Your task to perform on an android device: open app "Microsoft Excel" (install if not already installed), go to login, and select forgot password Image 0: 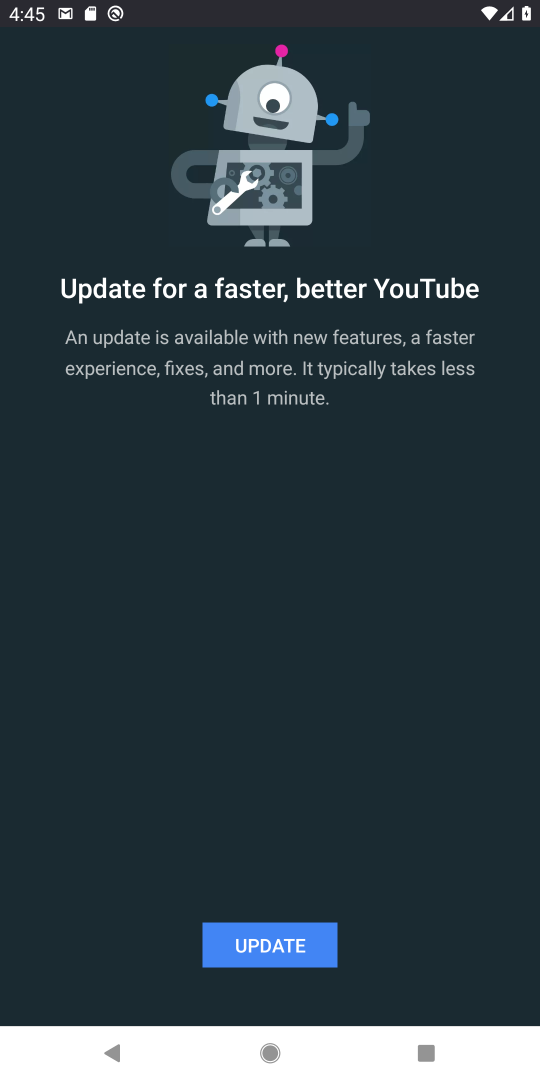
Step 0: press home button
Your task to perform on an android device: open app "Microsoft Excel" (install if not already installed), go to login, and select forgot password Image 1: 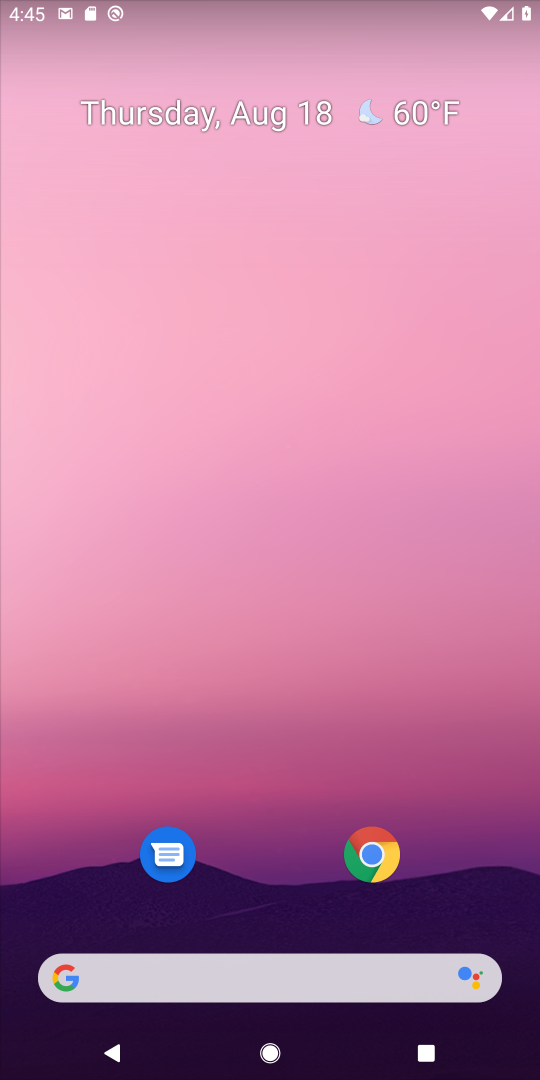
Step 1: drag from (254, 294) to (279, 144)
Your task to perform on an android device: open app "Microsoft Excel" (install if not already installed), go to login, and select forgot password Image 2: 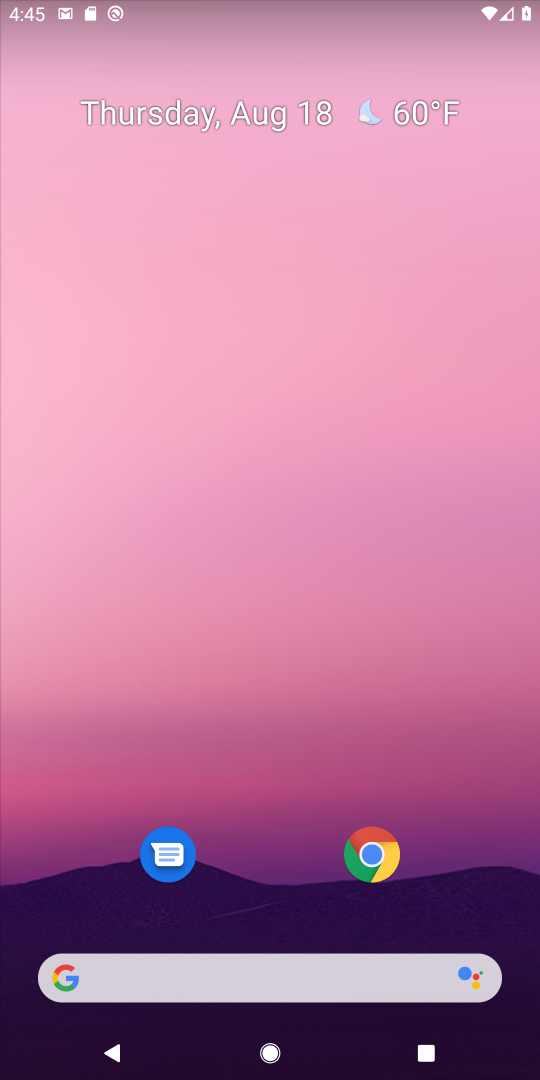
Step 2: click (287, 181)
Your task to perform on an android device: open app "Microsoft Excel" (install if not already installed), go to login, and select forgot password Image 3: 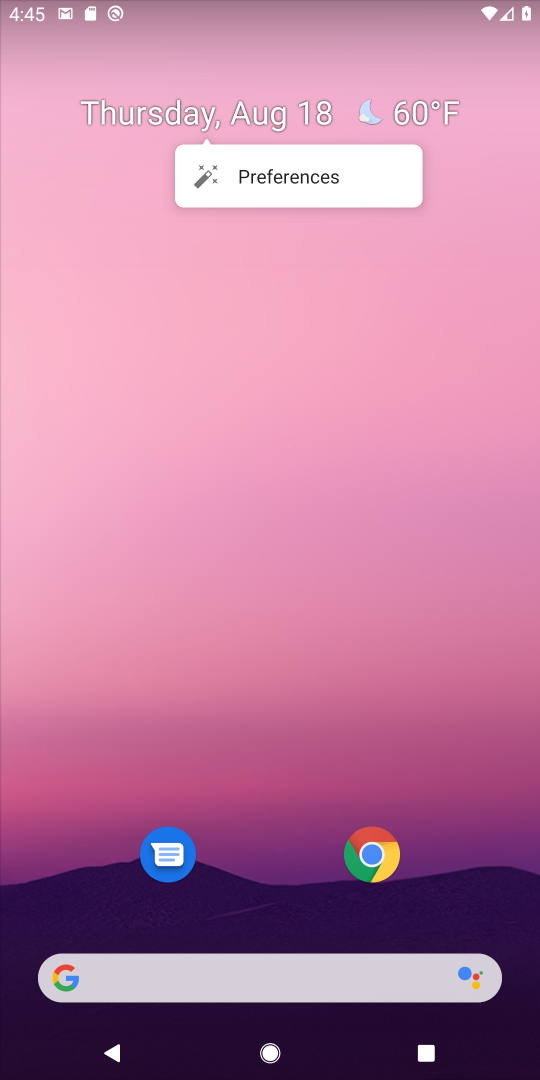
Step 3: drag from (296, 32) to (232, 206)
Your task to perform on an android device: open app "Microsoft Excel" (install if not already installed), go to login, and select forgot password Image 4: 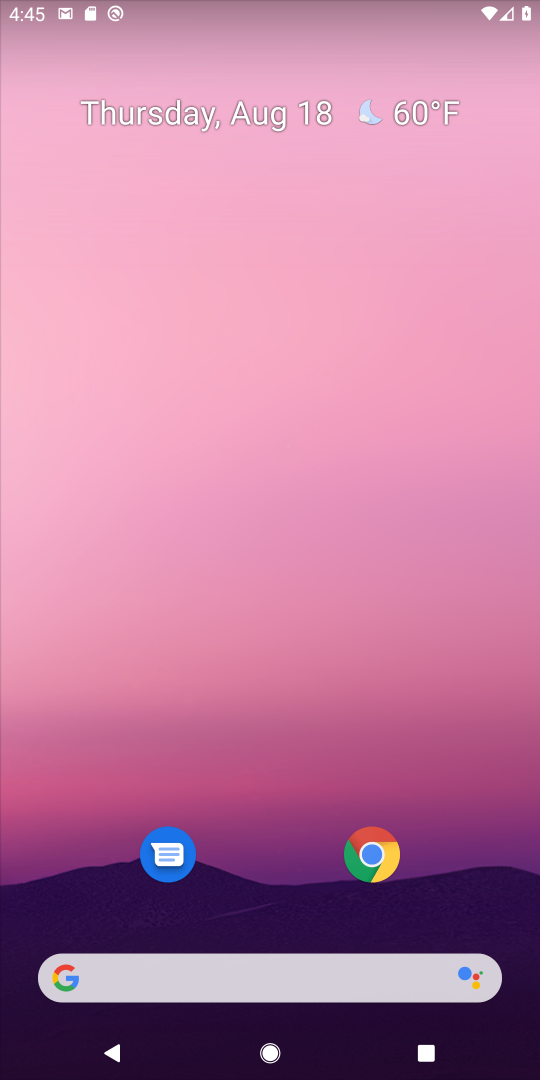
Step 4: click (299, 41)
Your task to perform on an android device: open app "Microsoft Excel" (install if not already installed), go to login, and select forgot password Image 5: 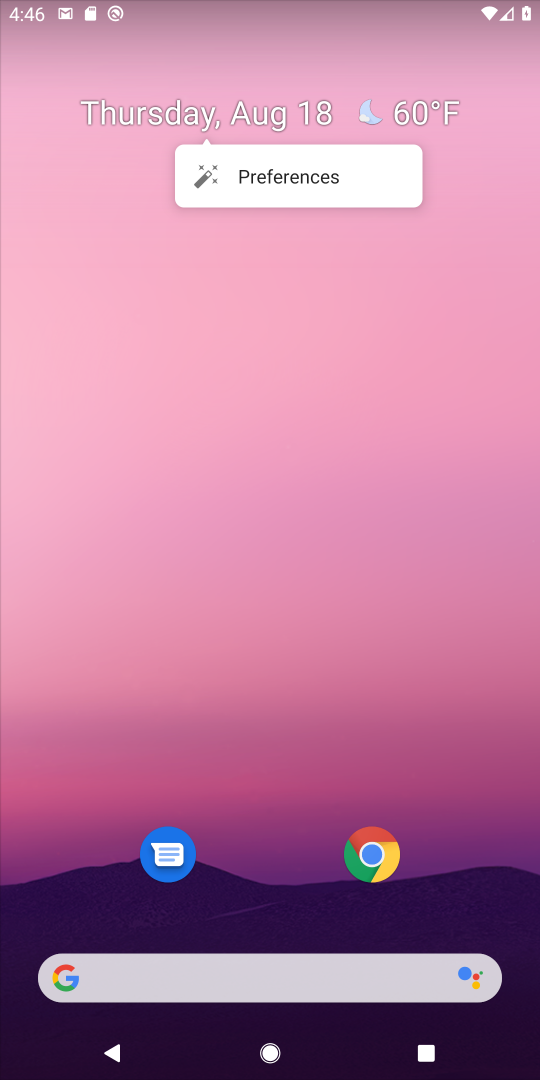
Step 5: click (306, 117)
Your task to perform on an android device: open app "Microsoft Excel" (install if not already installed), go to login, and select forgot password Image 6: 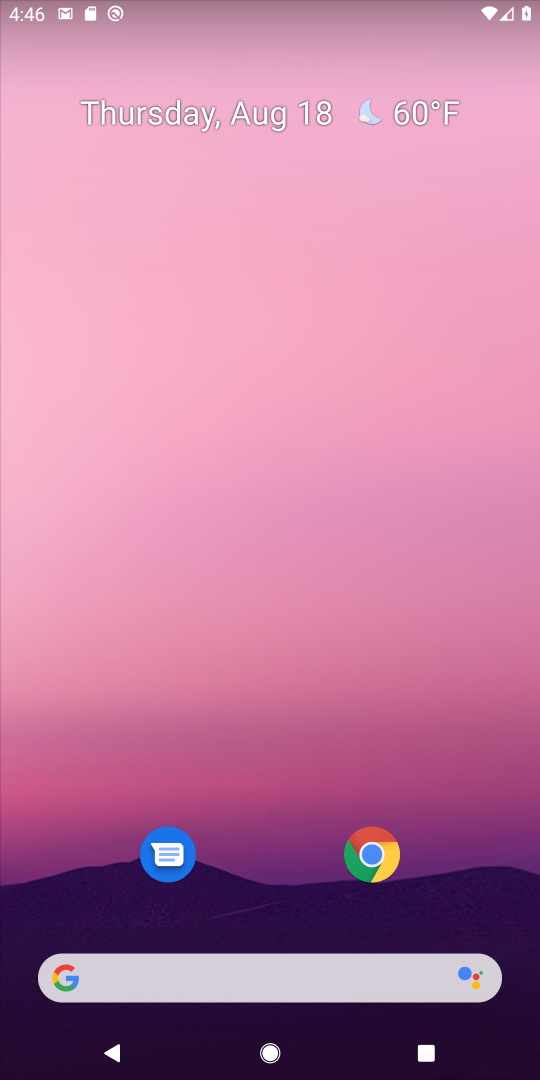
Step 6: drag from (262, 919) to (262, 225)
Your task to perform on an android device: open app "Microsoft Excel" (install if not already installed), go to login, and select forgot password Image 7: 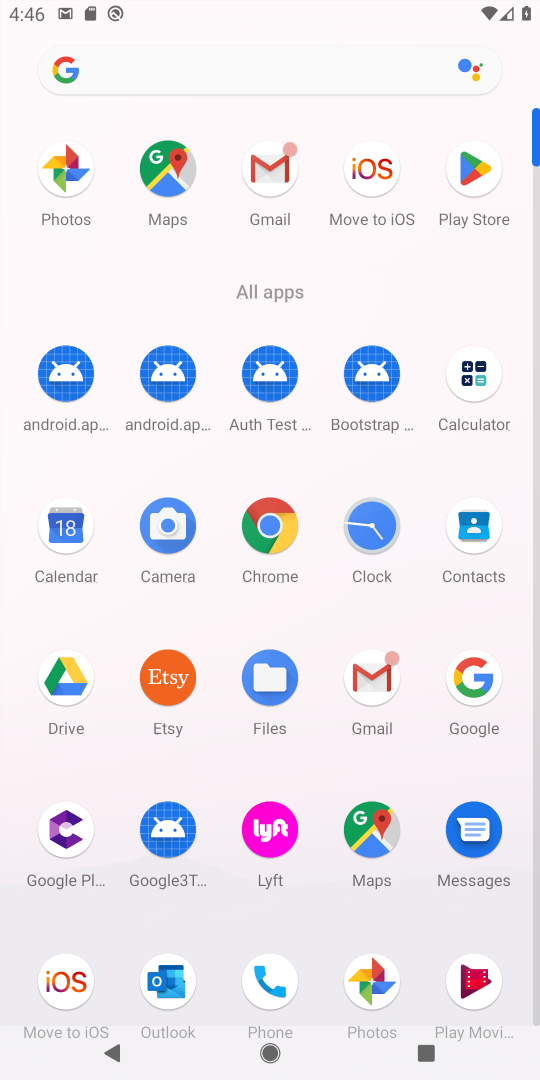
Step 7: click (470, 207)
Your task to perform on an android device: open app "Microsoft Excel" (install if not already installed), go to login, and select forgot password Image 8: 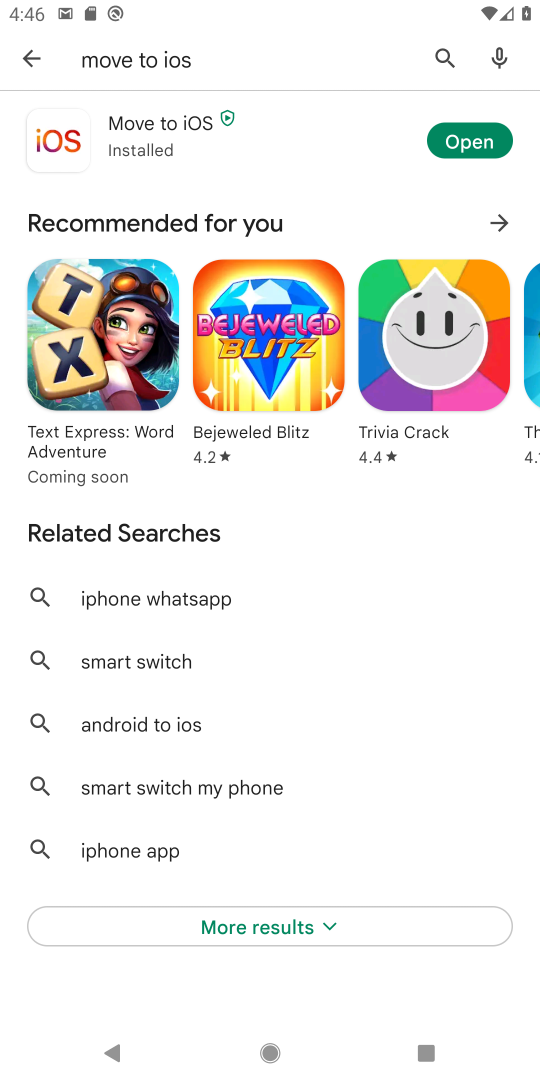
Step 8: click (23, 62)
Your task to perform on an android device: open app "Microsoft Excel" (install if not already installed), go to login, and select forgot password Image 9: 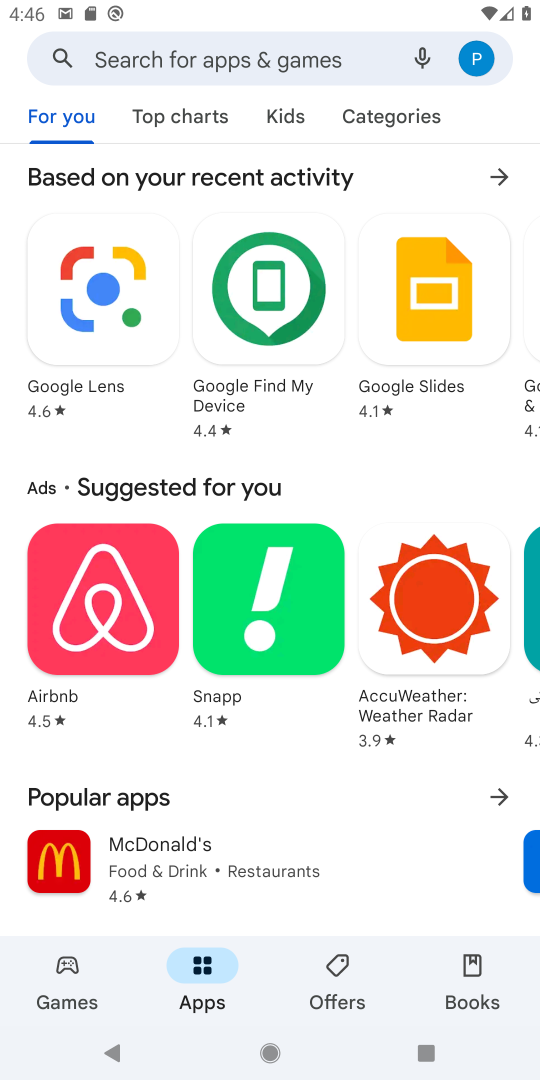
Step 9: click (174, 62)
Your task to perform on an android device: open app "Microsoft Excel" (install if not already installed), go to login, and select forgot password Image 10: 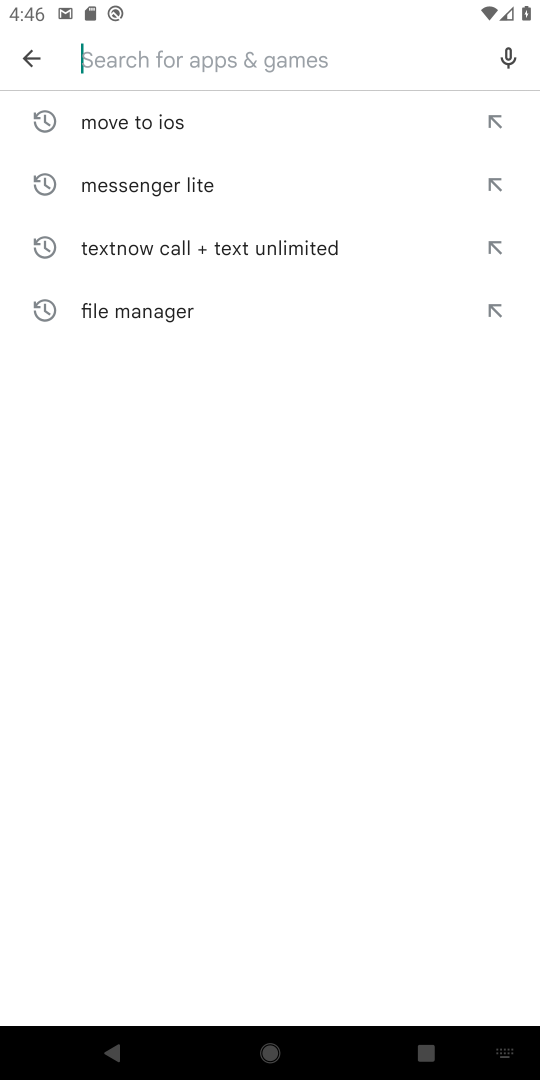
Step 10: type "Microsoft Excel"
Your task to perform on an android device: open app "Microsoft Excel" (install if not already installed), go to login, and select forgot password Image 11: 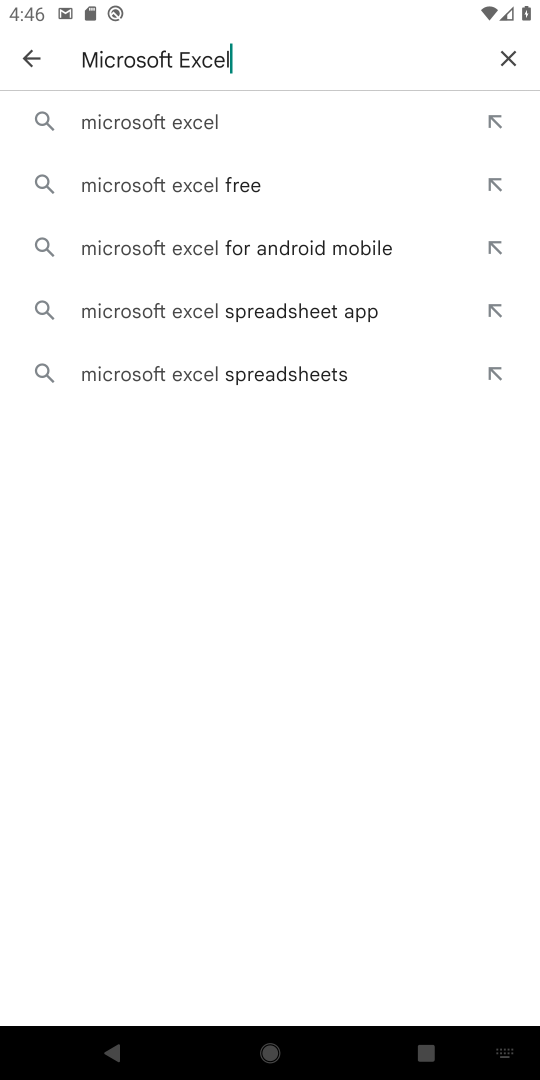
Step 11: click (152, 115)
Your task to perform on an android device: open app "Microsoft Excel" (install if not already installed), go to login, and select forgot password Image 12: 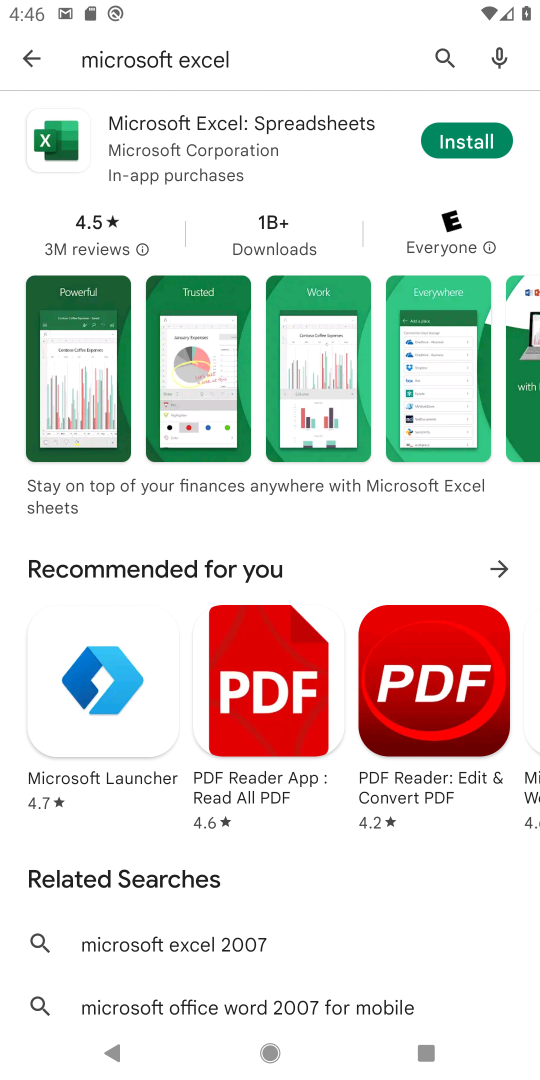
Step 12: click (501, 124)
Your task to perform on an android device: open app "Microsoft Excel" (install if not already installed), go to login, and select forgot password Image 13: 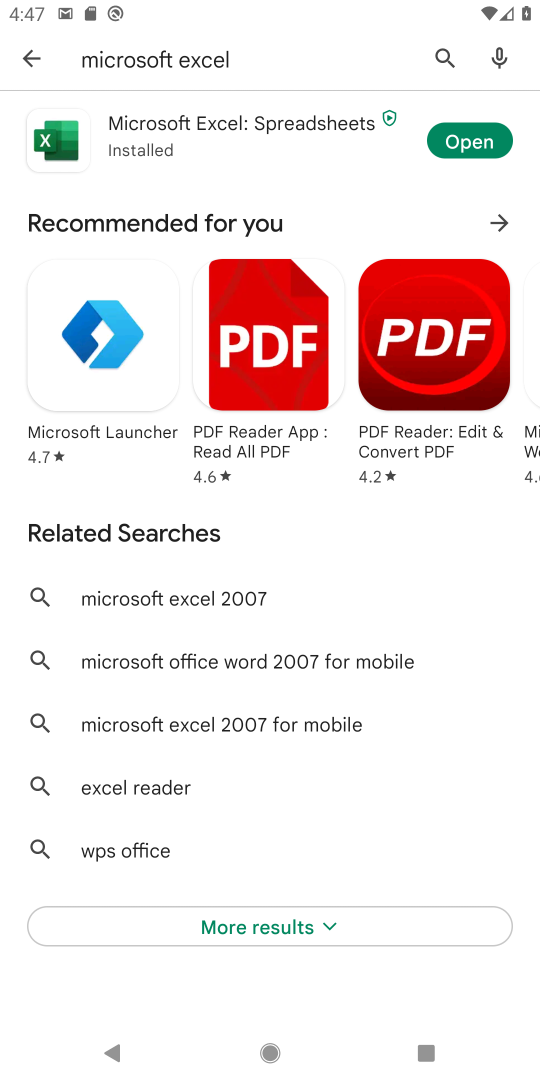
Step 13: click (448, 135)
Your task to perform on an android device: open app "Microsoft Excel" (install if not already installed), go to login, and select forgot password Image 14: 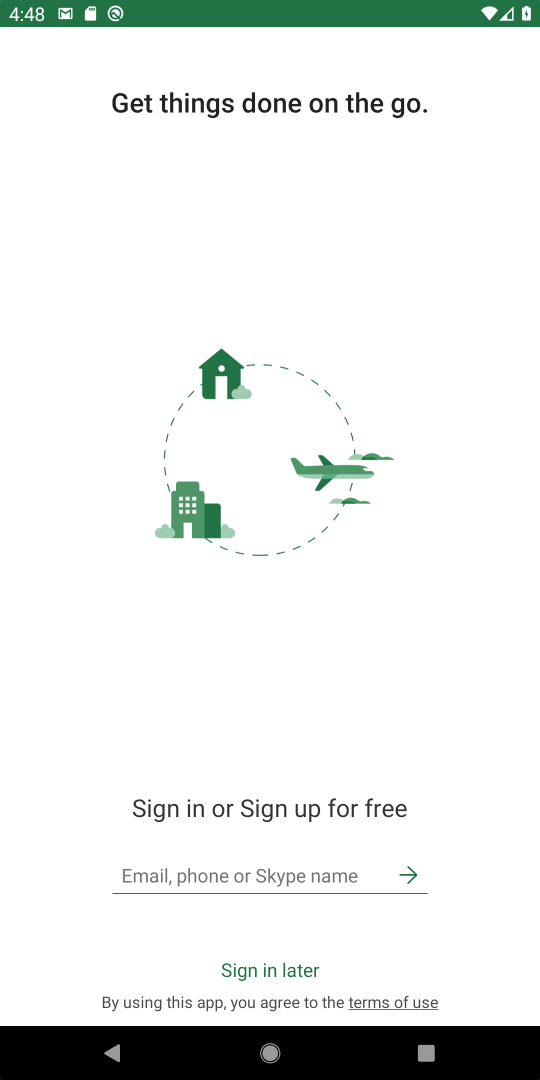
Step 14: task complete